Your task to perform on an android device: Open calendar and show me the third week of next month Image 0: 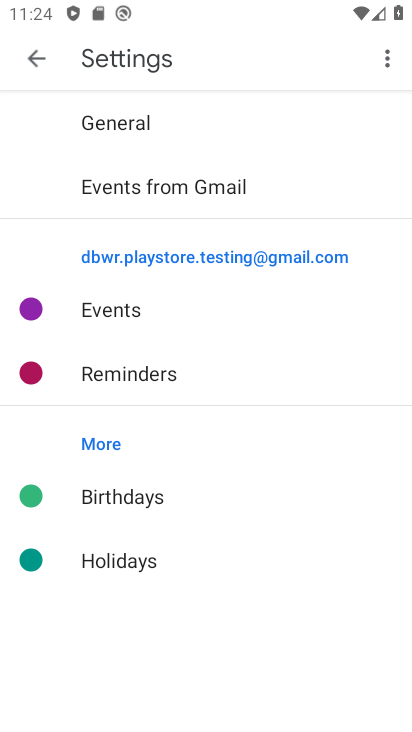
Step 0: press home button
Your task to perform on an android device: Open calendar and show me the third week of next month Image 1: 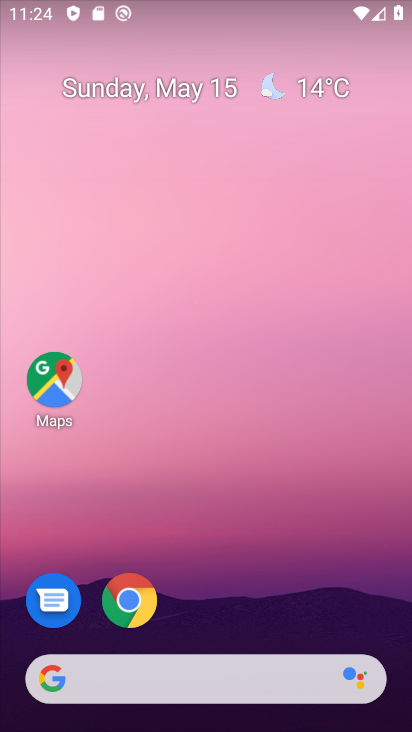
Step 1: drag from (385, 639) to (343, 125)
Your task to perform on an android device: Open calendar and show me the third week of next month Image 2: 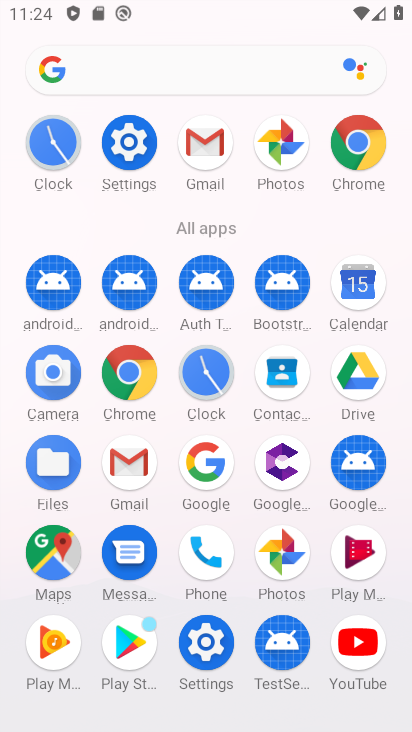
Step 2: click (357, 279)
Your task to perform on an android device: Open calendar and show me the third week of next month Image 3: 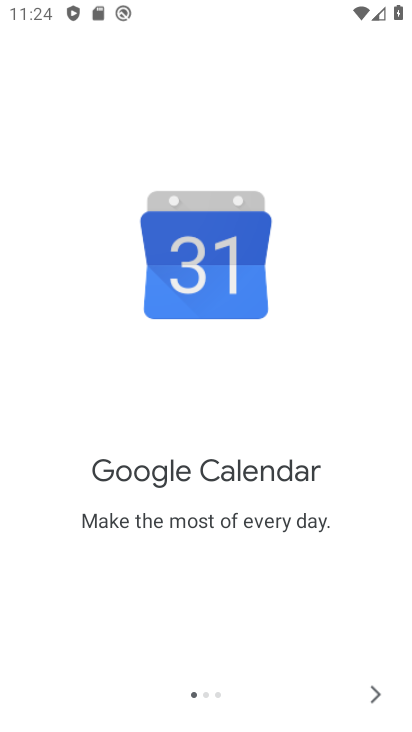
Step 3: click (373, 691)
Your task to perform on an android device: Open calendar and show me the third week of next month Image 4: 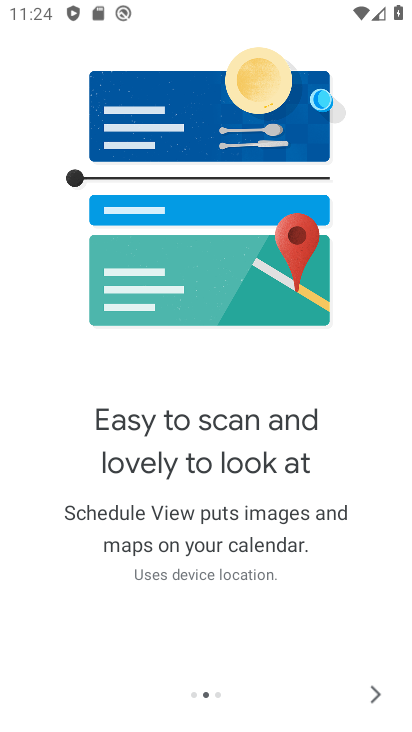
Step 4: click (373, 691)
Your task to perform on an android device: Open calendar and show me the third week of next month Image 5: 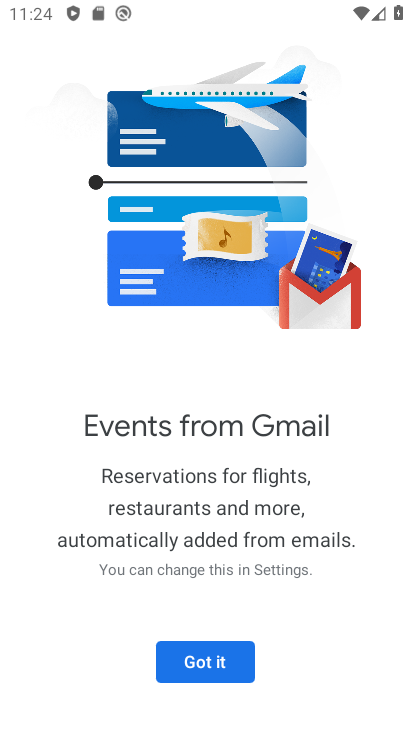
Step 5: click (200, 657)
Your task to perform on an android device: Open calendar and show me the third week of next month Image 6: 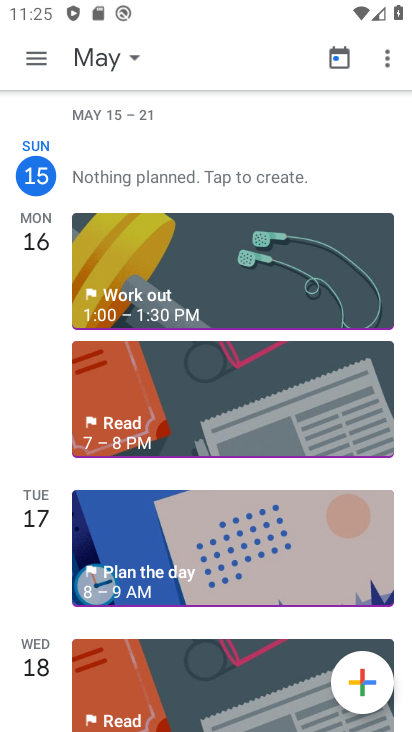
Step 6: click (39, 52)
Your task to perform on an android device: Open calendar and show me the third week of next month Image 7: 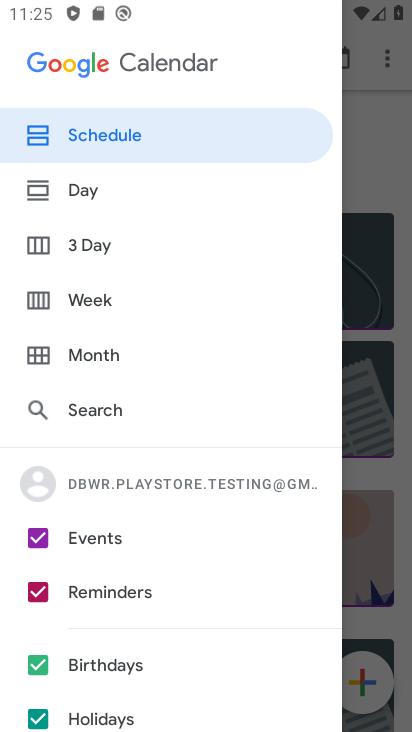
Step 7: click (90, 293)
Your task to perform on an android device: Open calendar and show me the third week of next month Image 8: 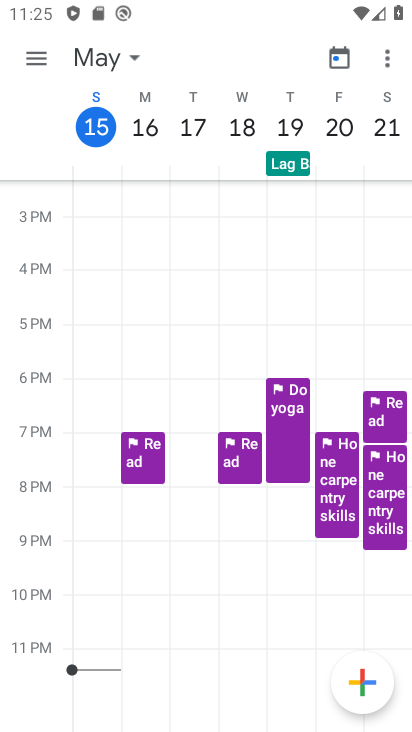
Step 8: click (135, 56)
Your task to perform on an android device: Open calendar and show me the third week of next month Image 9: 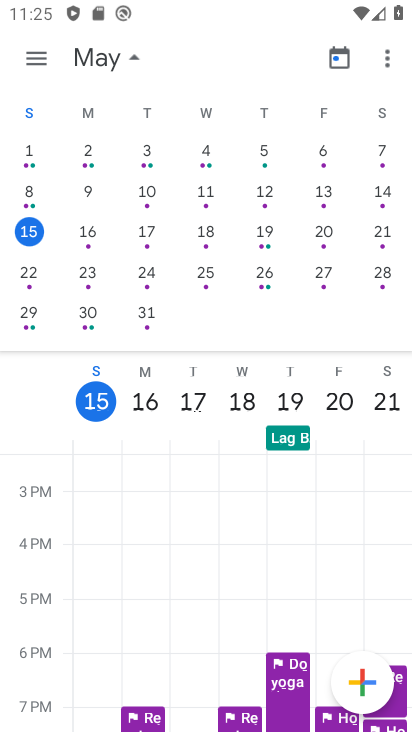
Step 9: drag from (379, 252) to (43, 209)
Your task to perform on an android device: Open calendar and show me the third week of next month Image 10: 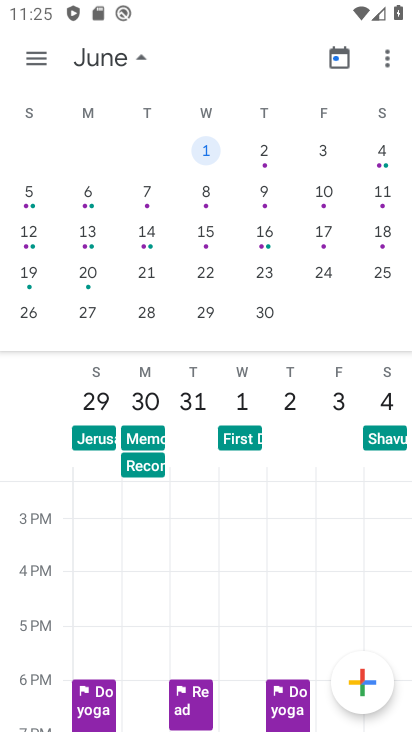
Step 10: click (26, 232)
Your task to perform on an android device: Open calendar and show me the third week of next month Image 11: 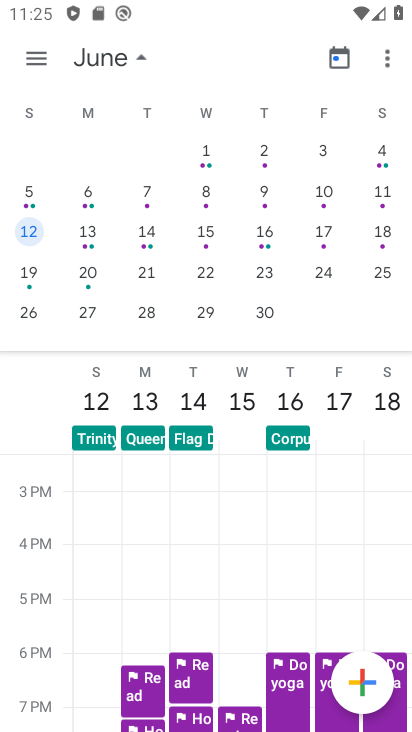
Step 11: task complete